Your task to perform on an android device: see tabs open on other devices in the chrome app Image 0: 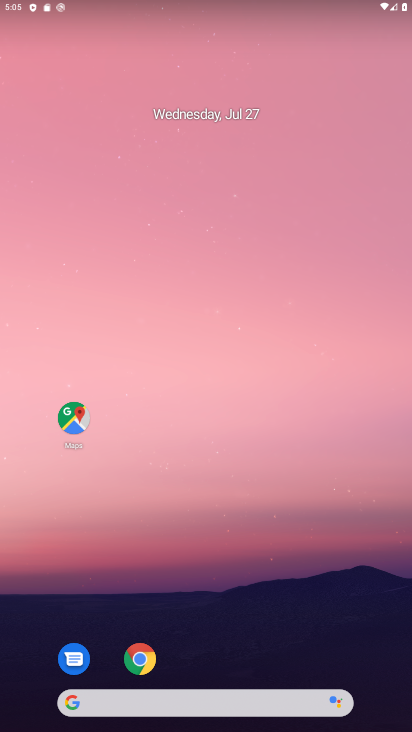
Step 0: click (147, 649)
Your task to perform on an android device: see tabs open on other devices in the chrome app Image 1: 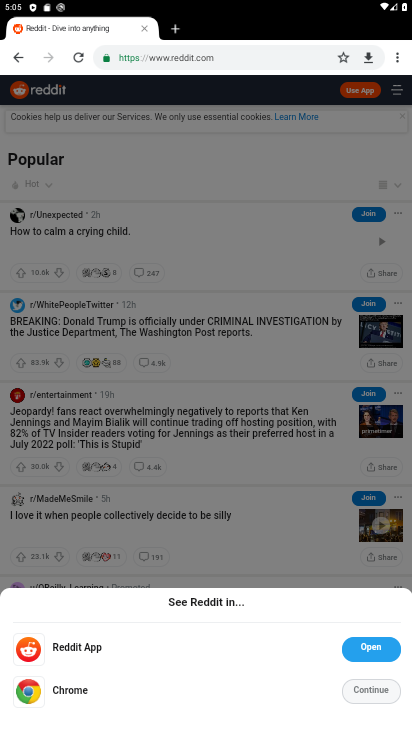
Step 1: task complete